Your task to perform on an android device: open device folders in google photos Image 0: 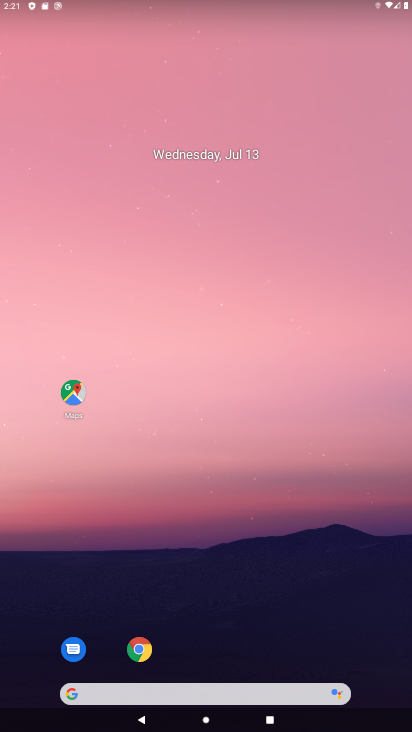
Step 0: drag from (216, 603) to (171, 225)
Your task to perform on an android device: open device folders in google photos Image 1: 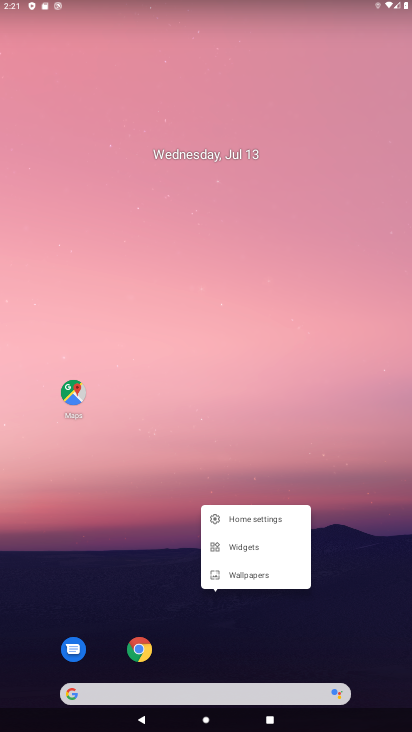
Step 1: click (143, 543)
Your task to perform on an android device: open device folders in google photos Image 2: 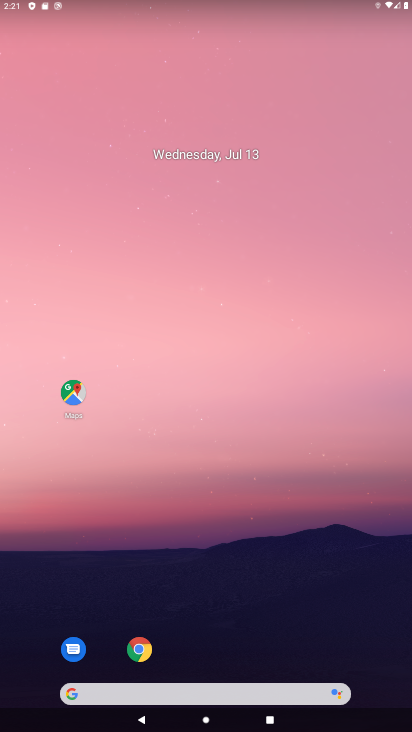
Step 2: drag from (214, 574) to (211, 32)
Your task to perform on an android device: open device folders in google photos Image 3: 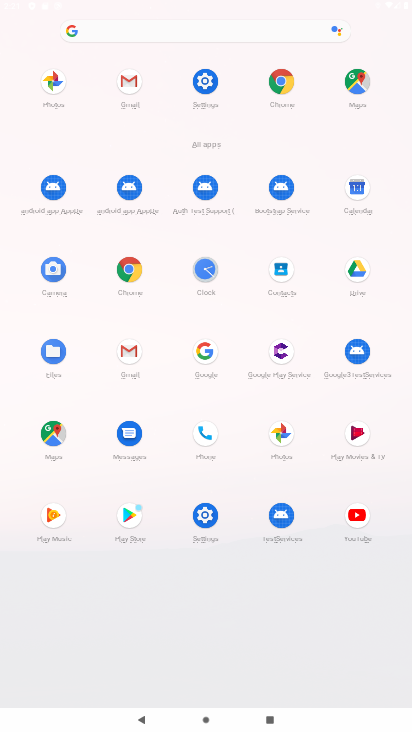
Step 3: click (52, 74)
Your task to perform on an android device: open device folders in google photos Image 4: 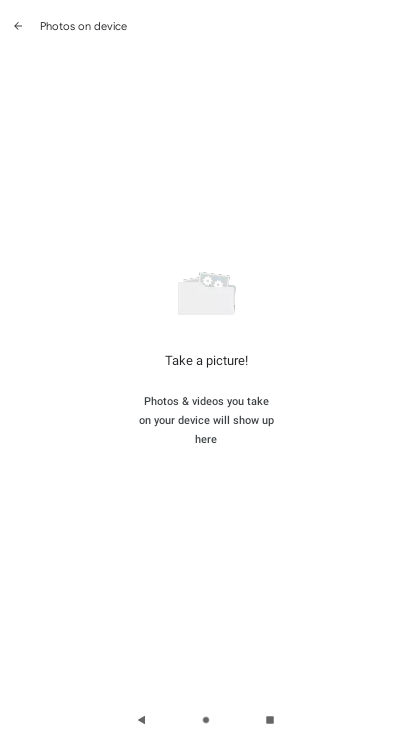
Step 4: click (15, 24)
Your task to perform on an android device: open device folders in google photos Image 5: 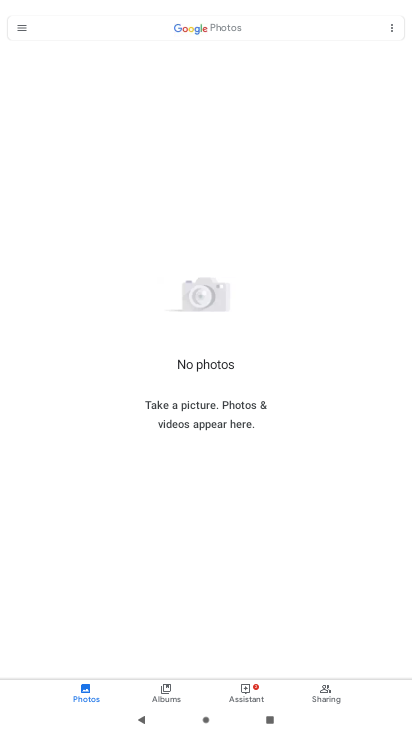
Step 5: click (20, 25)
Your task to perform on an android device: open device folders in google photos Image 6: 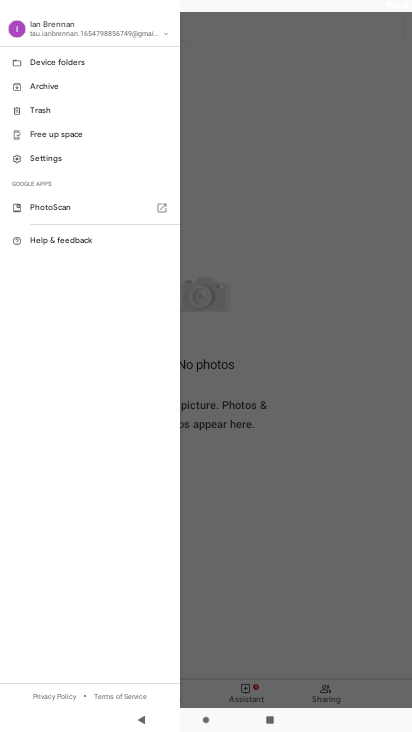
Step 6: click (58, 62)
Your task to perform on an android device: open device folders in google photos Image 7: 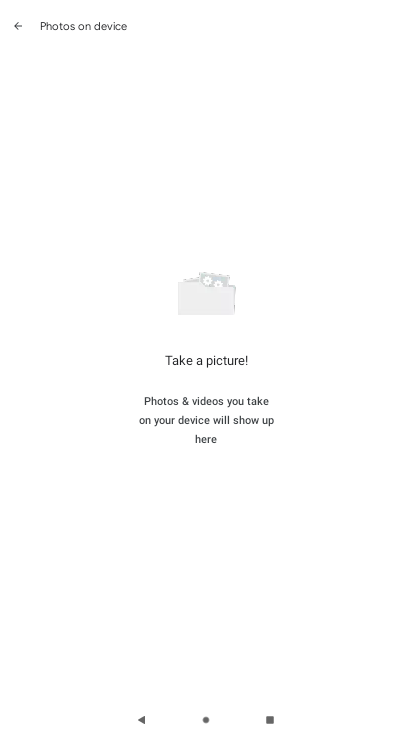
Step 7: task complete